Your task to perform on an android device: turn off location Image 0: 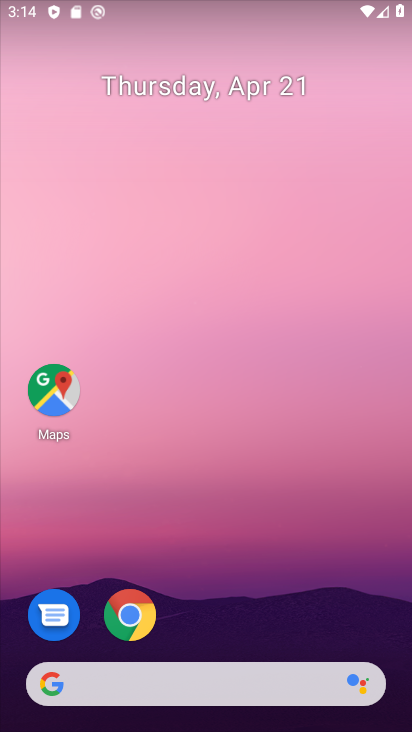
Step 0: drag from (297, 496) to (235, 18)
Your task to perform on an android device: turn off location Image 1: 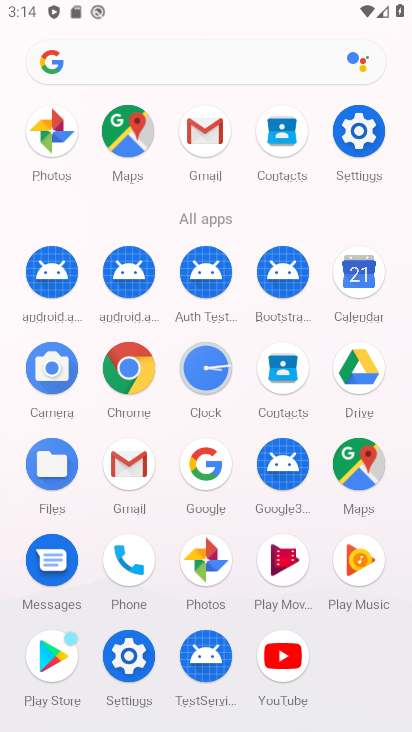
Step 1: click (355, 465)
Your task to perform on an android device: turn off location Image 2: 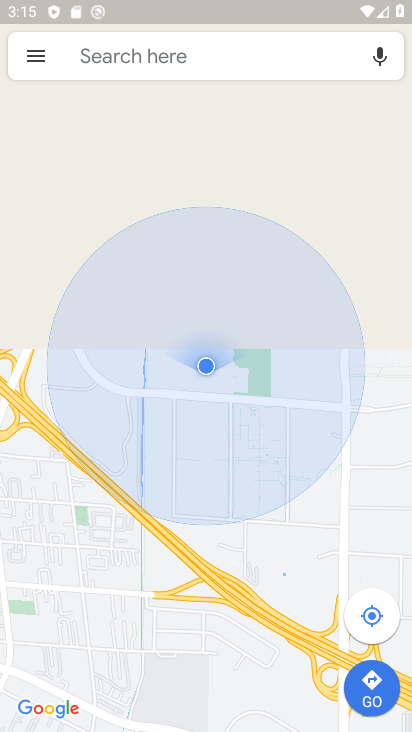
Step 2: click (30, 48)
Your task to perform on an android device: turn off location Image 3: 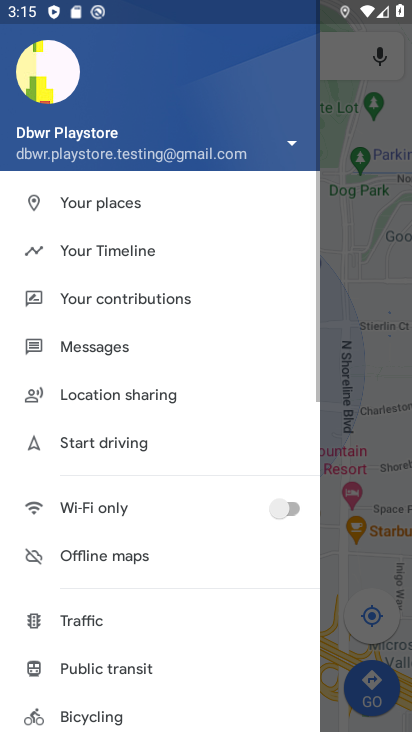
Step 3: drag from (170, 521) to (216, 120)
Your task to perform on an android device: turn off location Image 4: 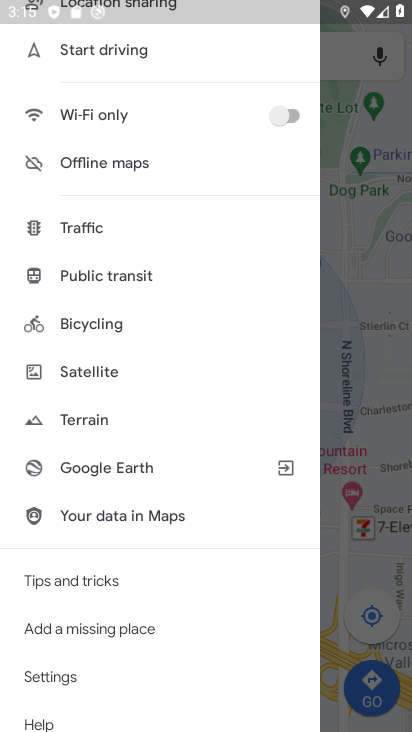
Step 4: drag from (110, 680) to (195, 258)
Your task to perform on an android device: turn off location Image 5: 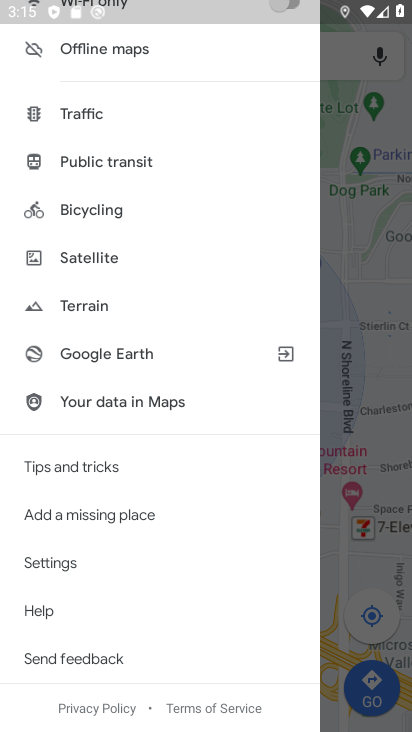
Step 5: click (70, 564)
Your task to perform on an android device: turn off location Image 6: 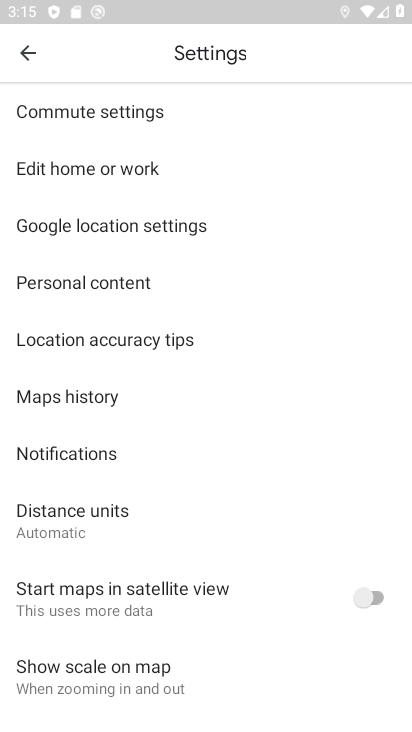
Step 6: drag from (219, 470) to (259, 106)
Your task to perform on an android device: turn off location Image 7: 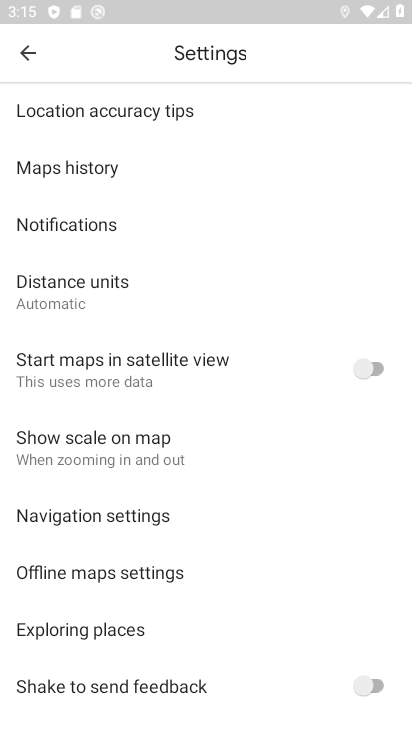
Step 7: drag from (192, 500) to (231, 120)
Your task to perform on an android device: turn off location Image 8: 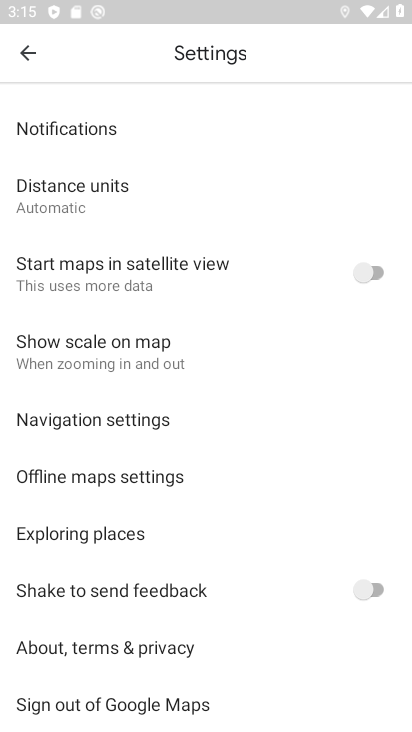
Step 8: drag from (182, 524) to (208, 172)
Your task to perform on an android device: turn off location Image 9: 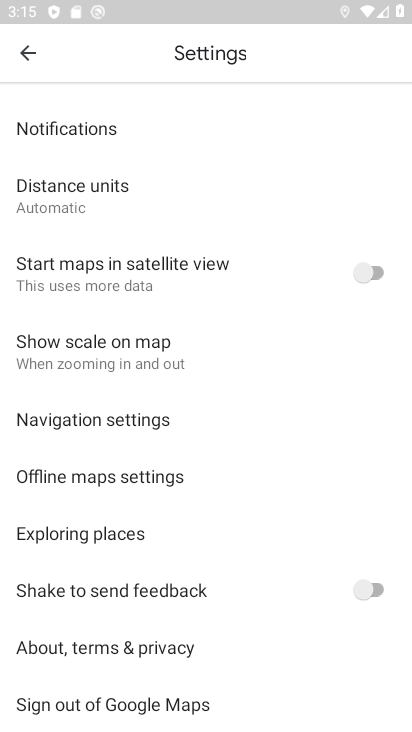
Step 9: drag from (211, 563) to (225, 205)
Your task to perform on an android device: turn off location Image 10: 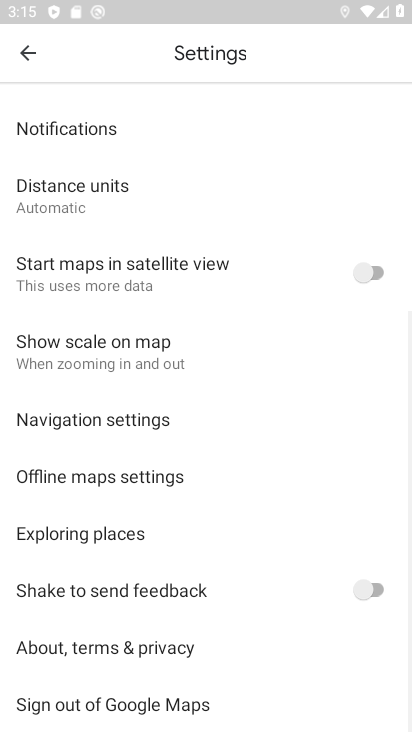
Step 10: drag from (227, 163) to (198, 548)
Your task to perform on an android device: turn off location Image 11: 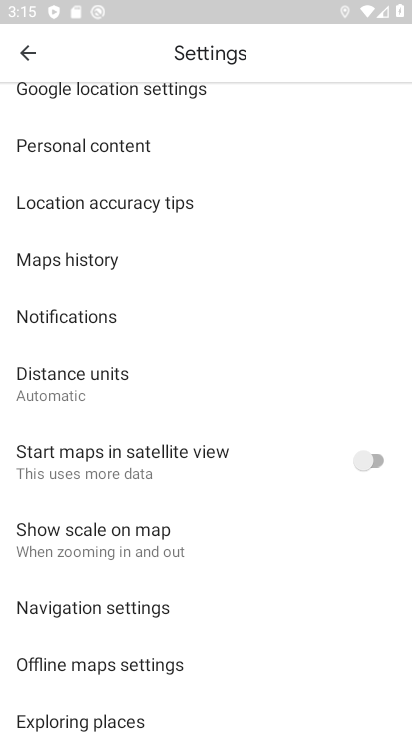
Step 11: drag from (213, 186) to (206, 520)
Your task to perform on an android device: turn off location Image 12: 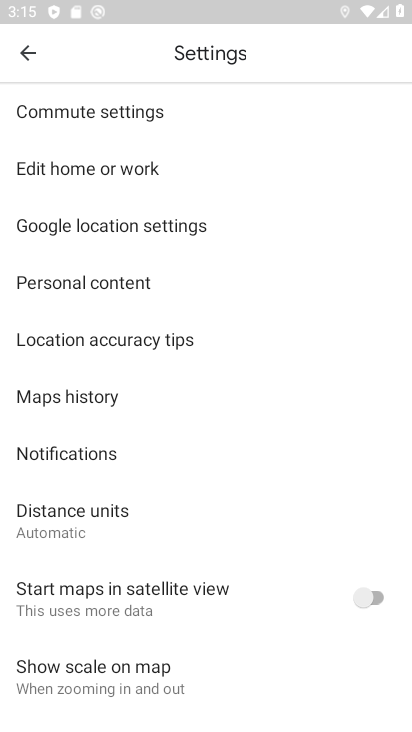
Step 12: click (157, 211)
Your task to perform on an android device: turn off location Image 13: 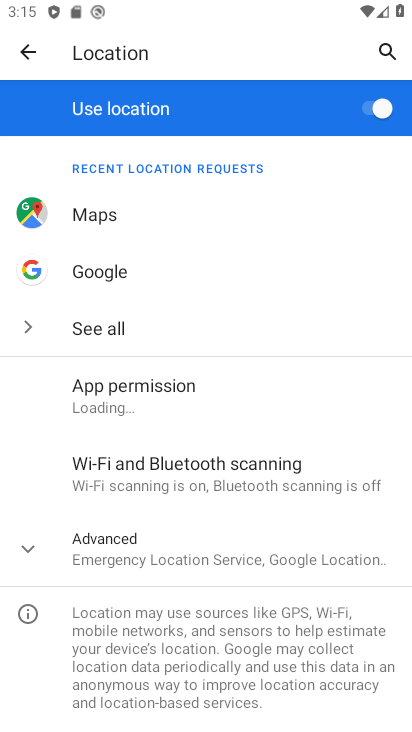
Step 13: click (382, 99)
Your task to perform on an android device: turn off location Image 14: 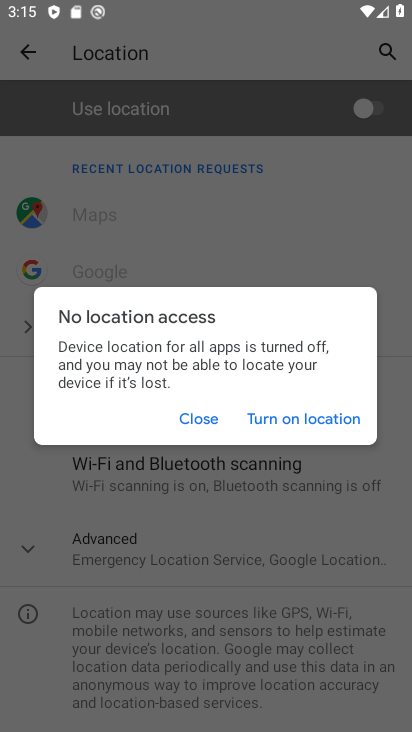
Step 14: click (192, 420)
Your task to perform on an android device: turn off location Image 15: 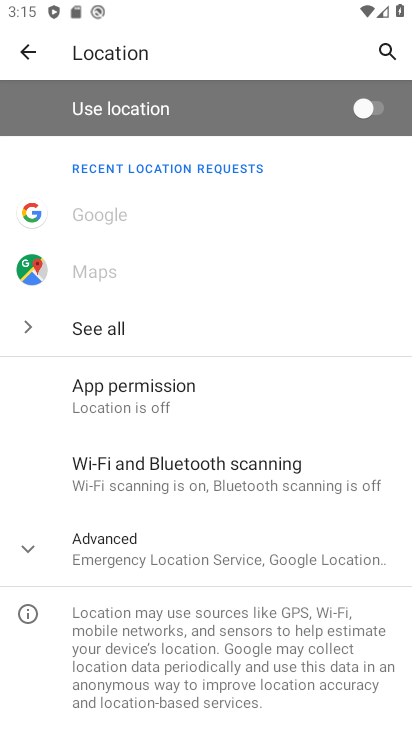
Step 15: task complete